Your task to perform on an android device: toggle show notifications on the lock screen Image 0: 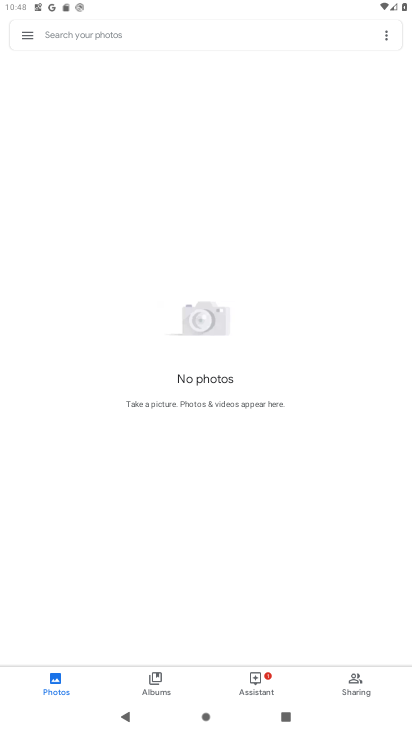
Step 0: press home button
Your task to perform on an android device: toggle show notifications on the lock screen Image 1: 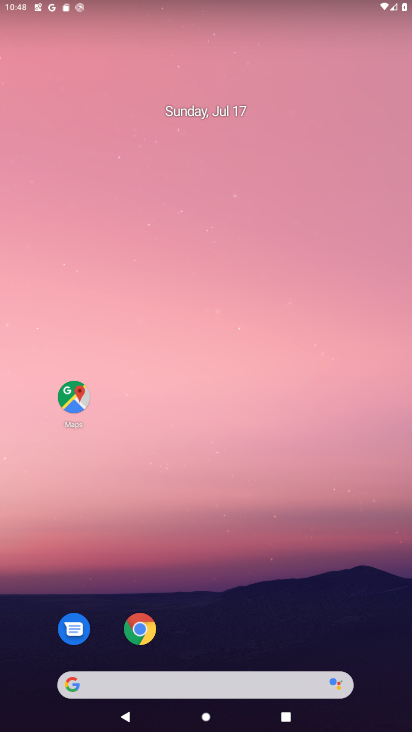
Step 1: drag from (206, 681) to (281, 36)
Your task to perform on an android device: toggle show notifications on the lock screen Image 2: 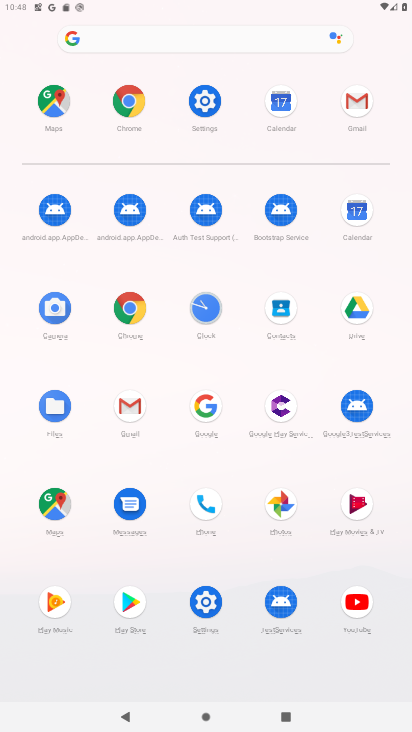
Step 2: click (207, 100)
Your task to perform on an android device: toggle show notifications on the lock screen Image 3: 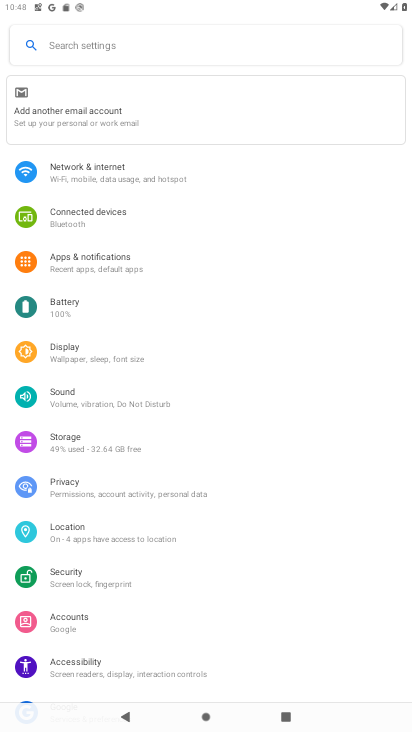
Step 3: click (101, 267)
Your task to perform on an android device: toggle show notifications on the lock screen Image 4: 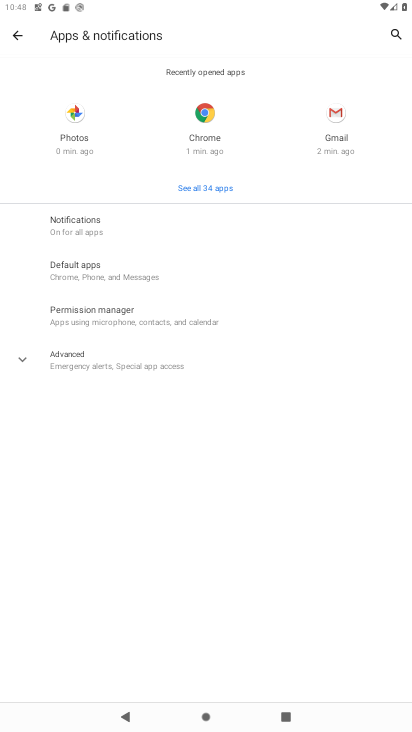
Step 4: click (88, 230)
Your task to perform on an android device: toggle show notifications on the lock screen Image 5: 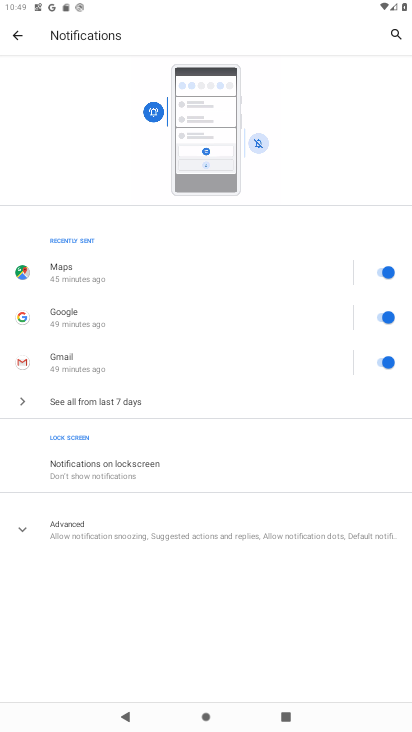
Step 5: click (93, 474)
Your task to perform on an android device: toggle show notifications on the lock screen Image 6: 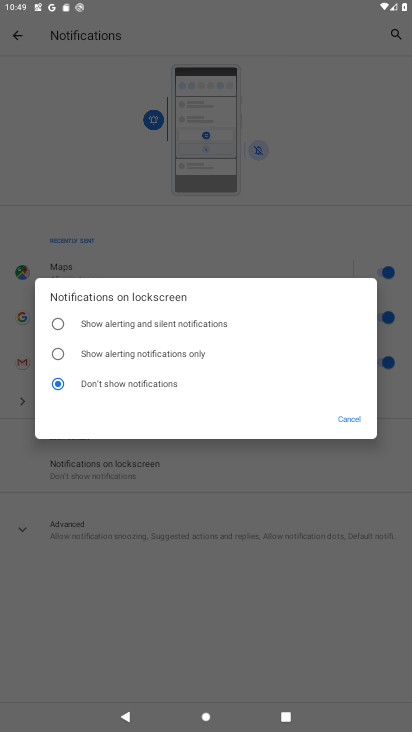
Step 6: click (54, 323)
Your task to perform on an android device: toggle show notifications on the lock screen Image 7: 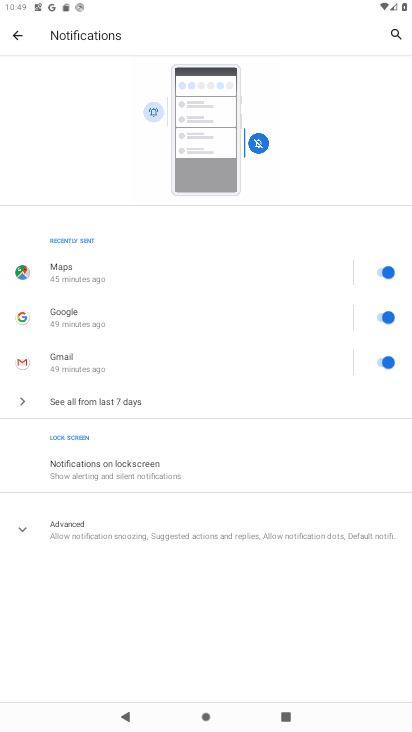
Step 7: task complete